Your task to perform on an android device: Go to internet settings Image 0: 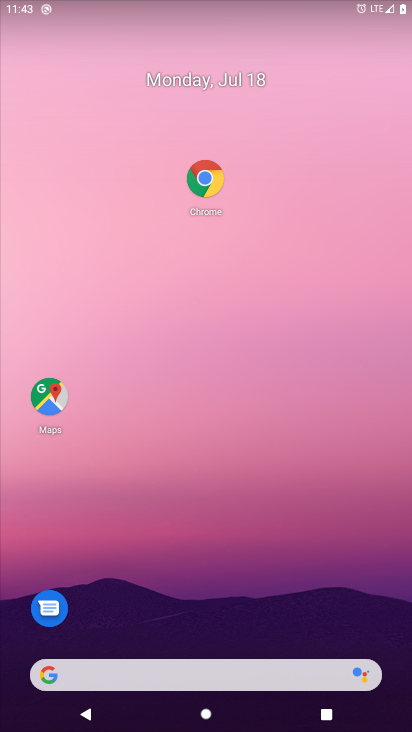
Step 0: drag from (75, 542) to (187, 197)
Your task to perform on an android device: Go to internet settings Image 1: 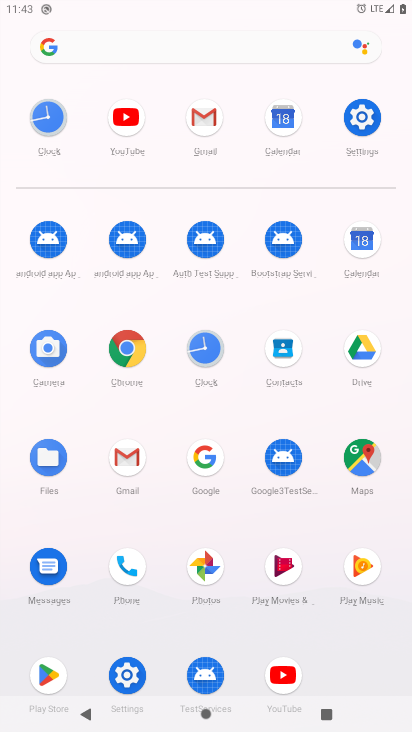
Step 1: click (124, 666)
Your task to perform on an android device: Go to internet settings Image 2: 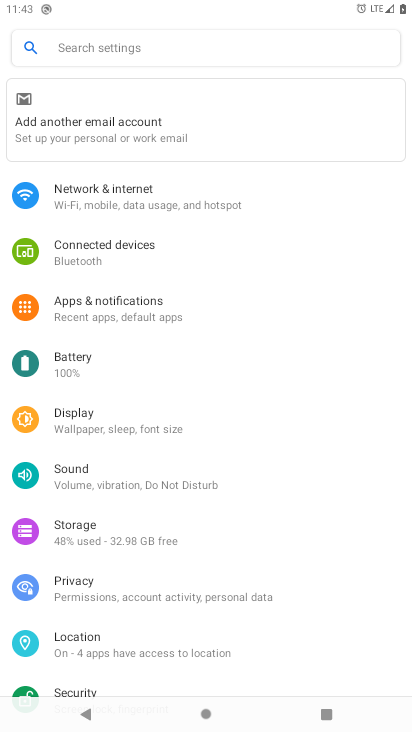
Step 2: click (121, 211)
Your task to perform on an android device: Go to internet settings Image 3: 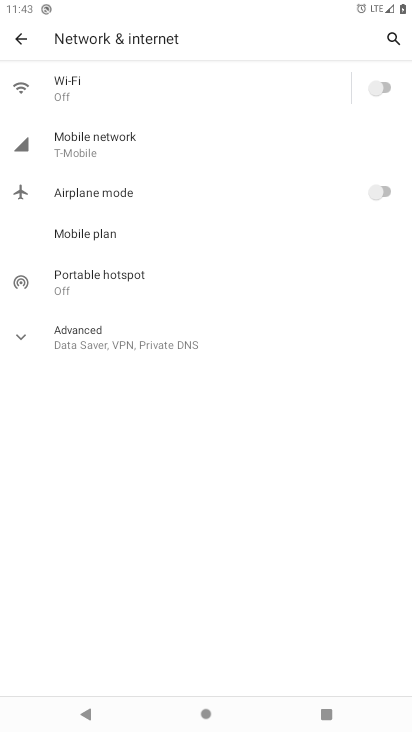
Step 3: task complete